Your task to perform on an android device: Go to privacy settings Image 0: 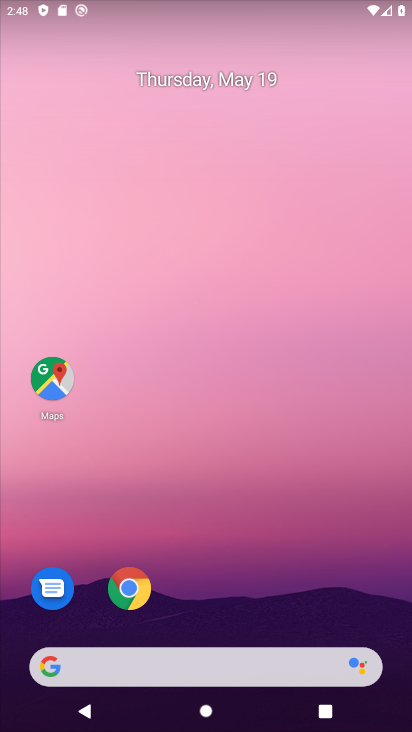
Step 0: drag from (278, 458) to (266, 200)
Your task to perform on an android device: Go to privacy settings Image 1: 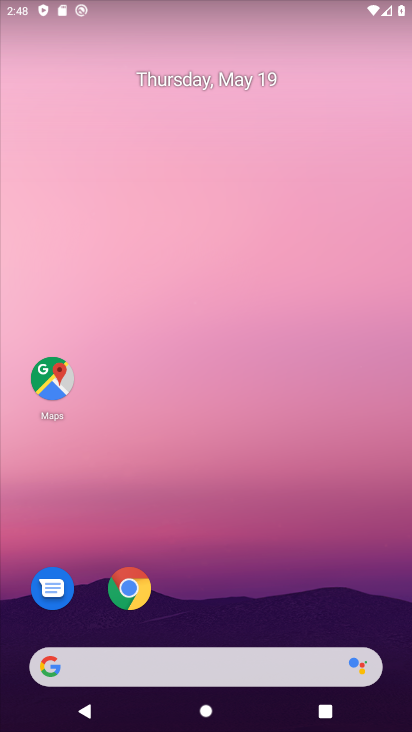
Step 1: drag from (365, 563) to (319, 184)
Your task to perform on an android device: Go to privacy settings Image 2: 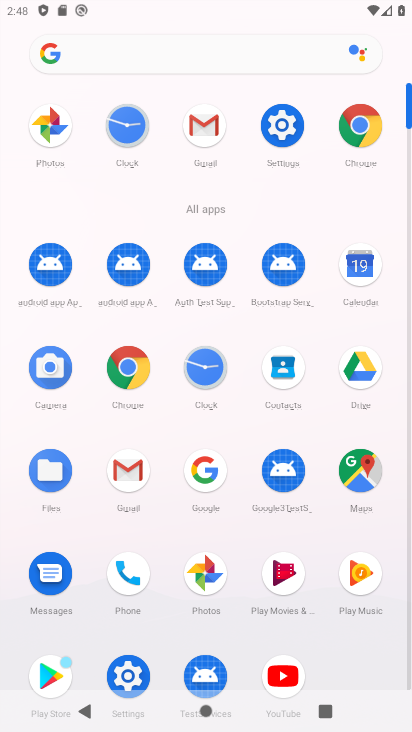
Step 2: click (274, 130)
Your task to perform on an android device: Go to privacy settings Image 3: 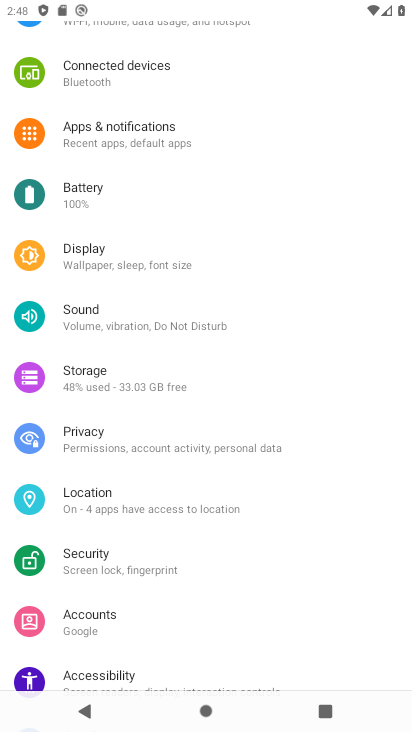
Step 3: click (129, 446)
Your task to perform on an android device: Go to privacy settings Image 4: 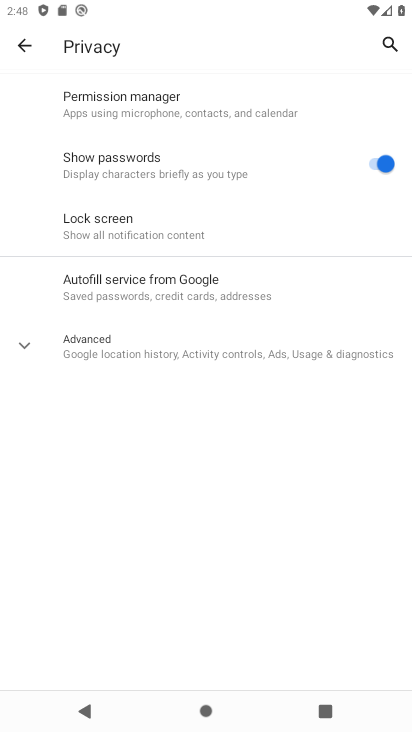
Step 4: task complete